Your task to perform on an android device: Is it going to rain today? Image 0: 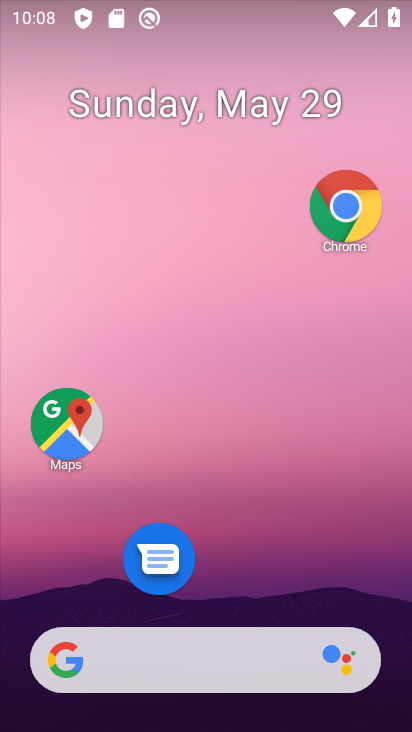
Step 0: drag from (203, 565) to (255, 86)
Your task to perform on an android device: Is it going to rain today? Image 1: 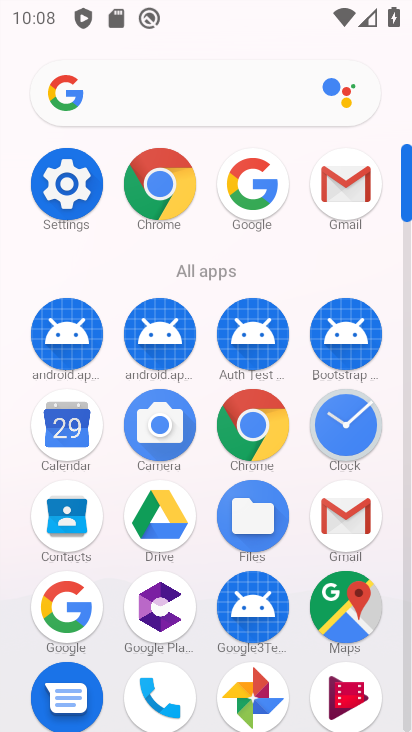
Step 1: click (153, 103)
Your task to perform on an android device: Is it going to rain today? Image 2: 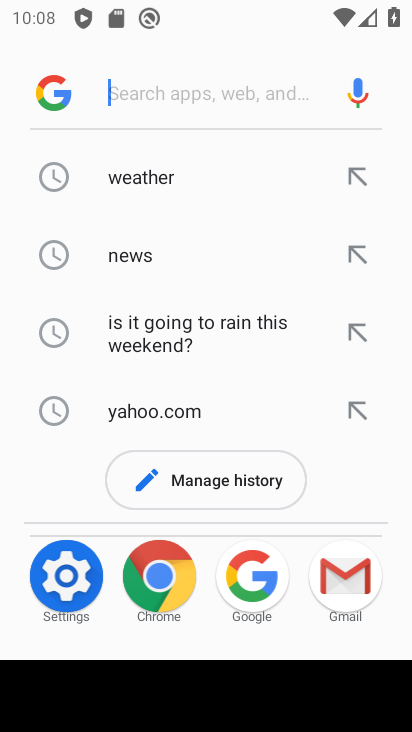
Step 2: click (145, 179)
Your task to perform on an android device: Is it going to rain today? Image 3: 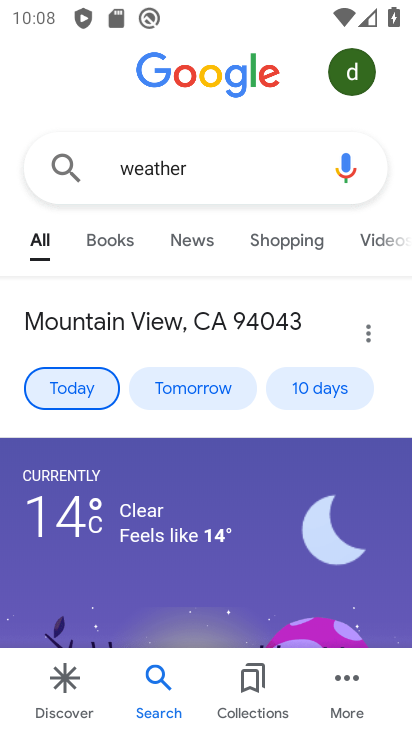
Step 3: task complete